Your task to perform on an android device: Is it going to rain this weekend? Image 0: 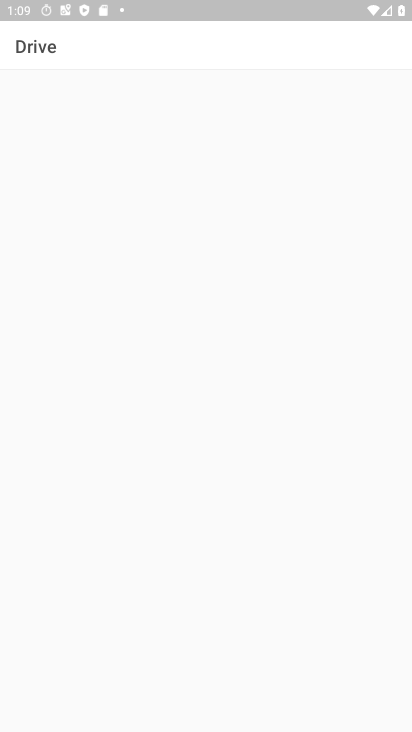
Step 0: press home button
Your task to perform on an android device: Is it going to rain this weekend? Image 1: 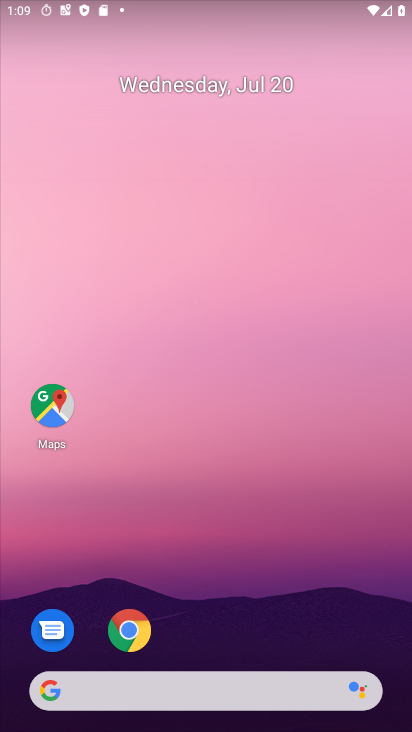
Step 1: click (231, 684)
Your task to perform on an android device: Is it going to rain this weekend? Image 2: 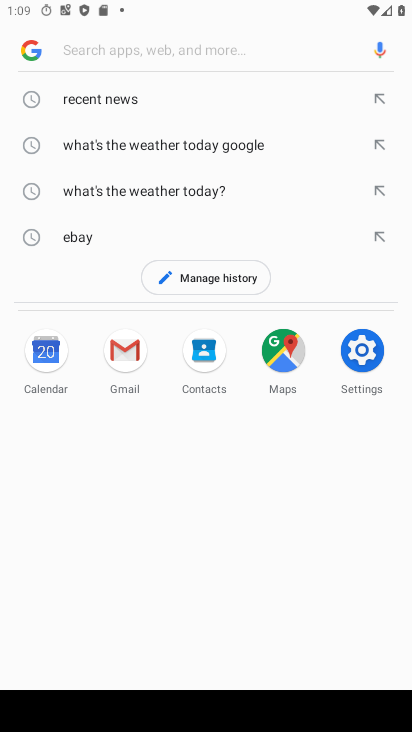
Step 2: type "is it going to rain this weekend"
Your task to perform on an android device: Is it going to rain this weekend? Image 3: 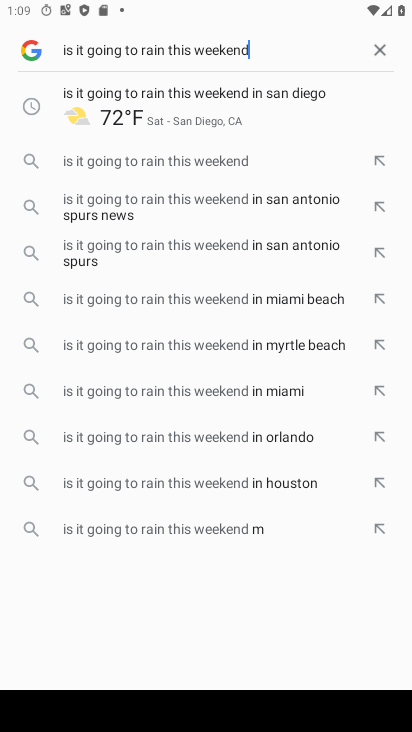
Step 3: click (161, 163)
Your task to perform on an android device: Is it going to rain this weekend? Image 4: 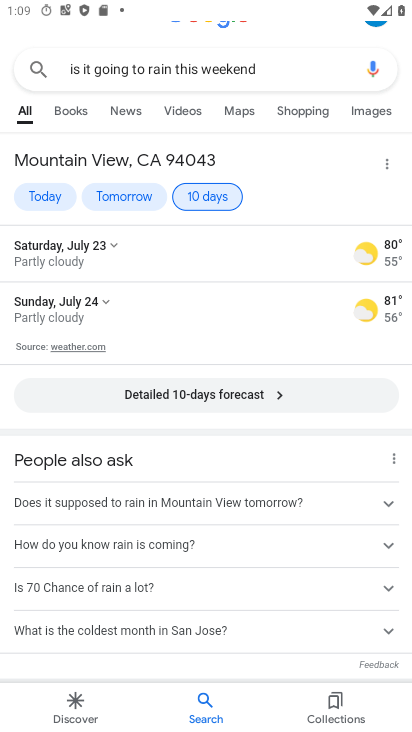
Step 4: task complete